Your task to perform on an android device: open the mobile data screen to see how much data has been used Image 0: 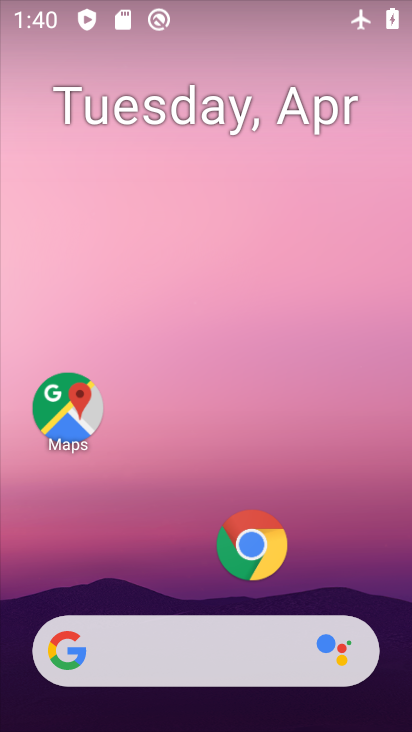
Step 0: drag from (158, 584) to (247, 170)
Your task to perform on an android device: open the mobile data screen to see how much data has been used Image 1: 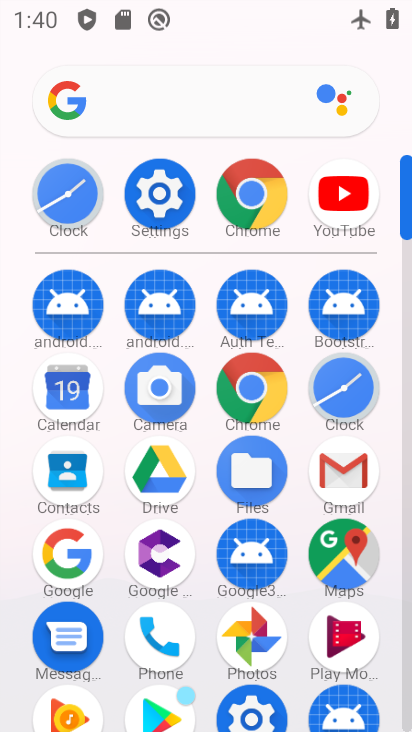
Step 1: click (146, 190)
Your task to perform on an android device: open the mobile data screen to see how much data has been used Image 2: 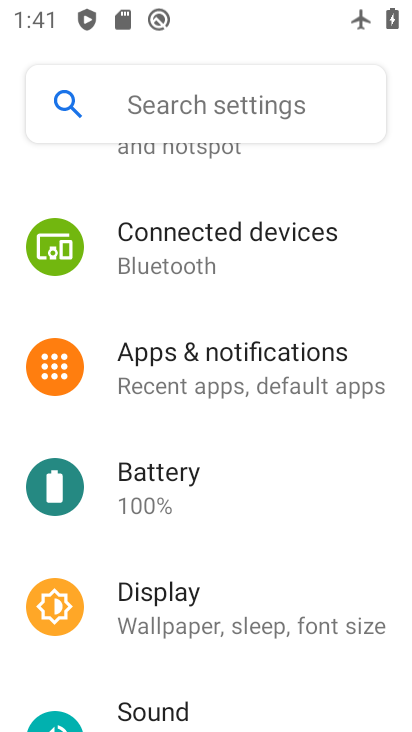
Step 2: drag from (217, 208) to (212, 593)
Your task to perform on an android device: open the mobile data screen to see how much data has been used Image 3: 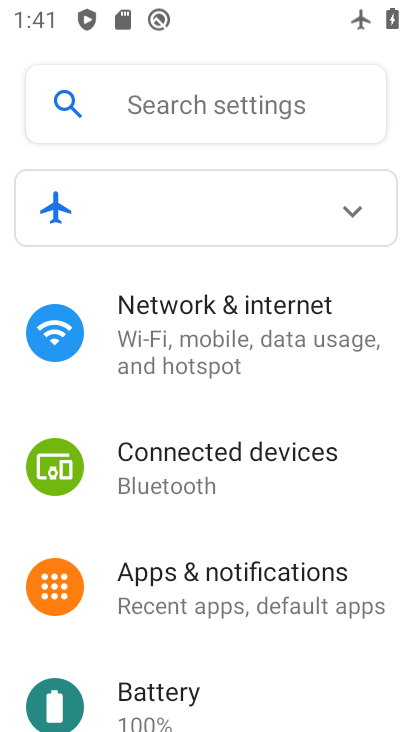
Step 3: click (216, 332)
Your task to perform on an android device: open the mobile data screen to see how much data has been used Image 4: 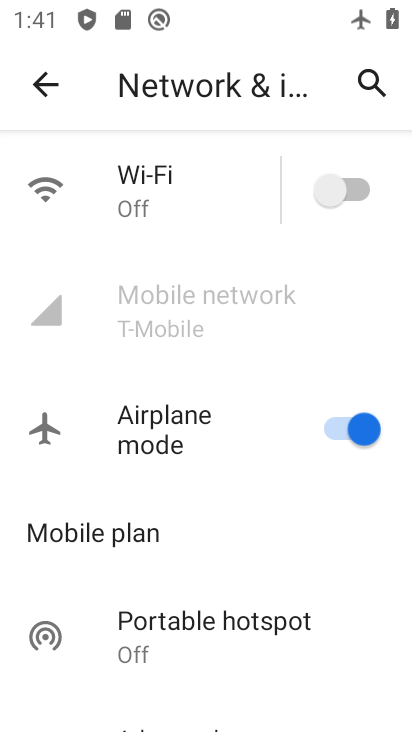
Step 4: click (216, 332)
Your task to perform on an android device: open the mobile data screen to see how much data has been used Image 5: 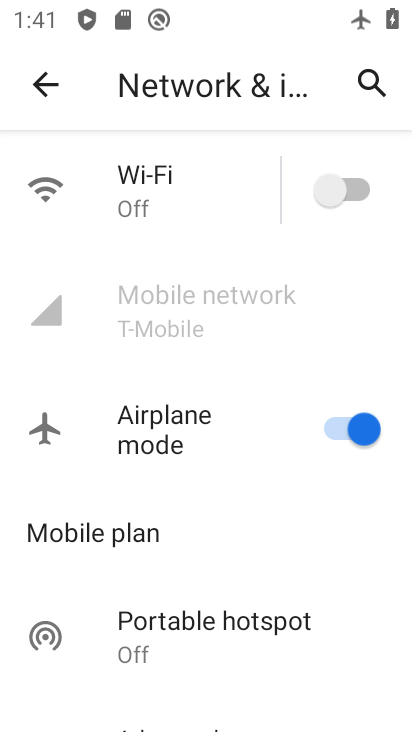
Step 5: task complete